Your task to perform on an android device: Find coffee shops on Maps Image 0: 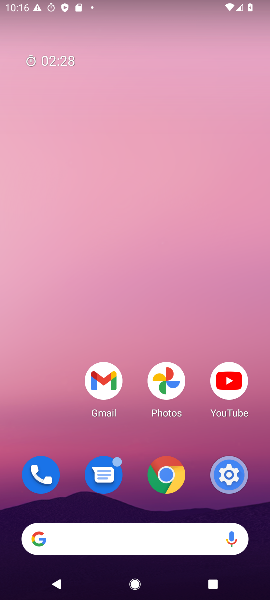
Step 0: drag from (139, 436) to (112, 6)
Your task to perform on an android device: Find coffee shops on Maps Image 1: 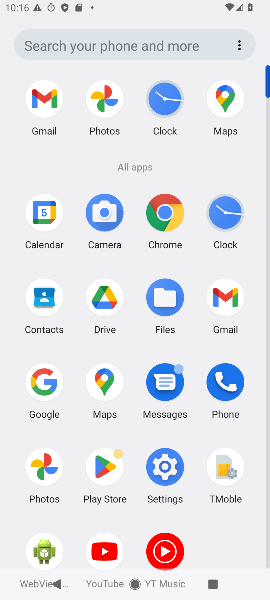
Step 1: click (107, 392)
Your task to perform on an android device: Find coffee shops on Maps Image 2: 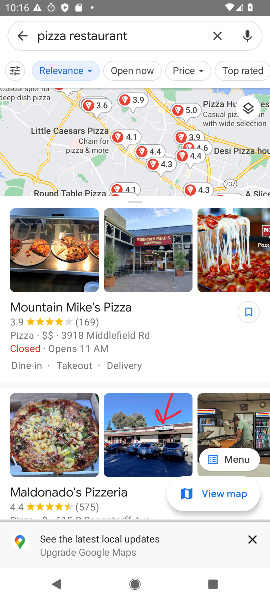
Step 2: click (79, 34)
Your task to perform on an android device: Find coffee shops on Maps Image 3: 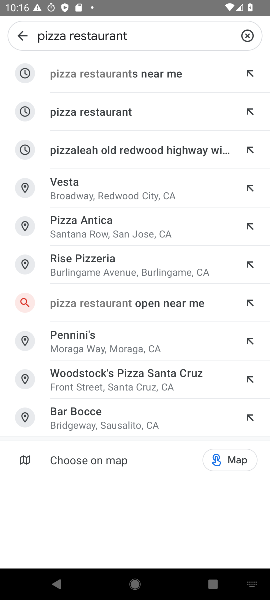
Step 3: click (246, 34)
Your task to perform on an android device: Find coffee shops on Maps Image 4: 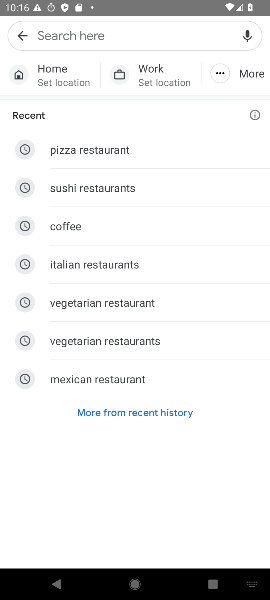
Step 4: type "coffee shops"
Your task to perform on an android device: Find coffee shops on Maps Image 5: 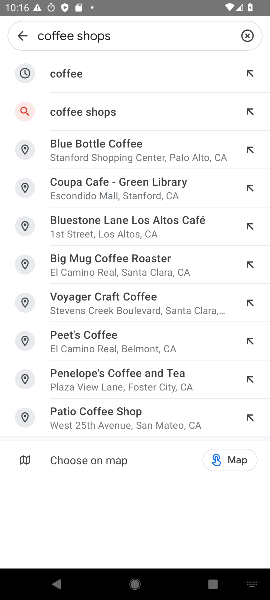
Step 5: click (92, 112)
Your task to perform on an android device: Find coffee shops on Maps Image 6: 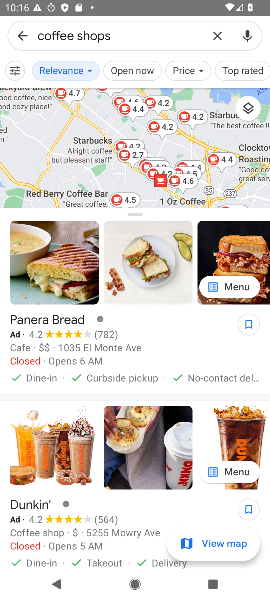
Step 6: task complete